Your task to perform on an android device: Open the calendar and show me this week's events? Image 0: 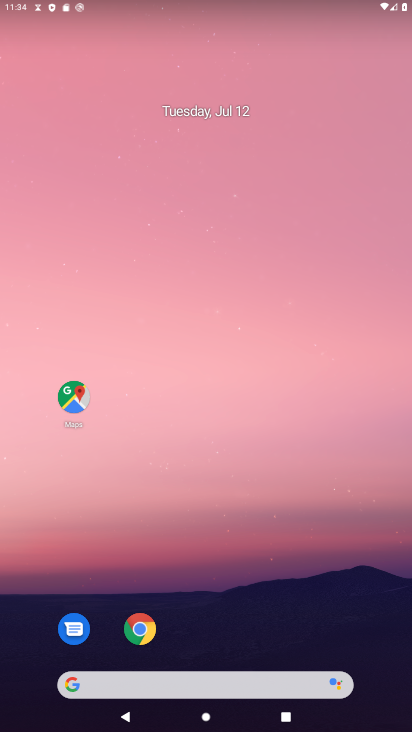
Step 0: drag from (303, 617) to (280, 29)
Your task to perform on an android device: Open the calendar and show me this week's events? Image 1: 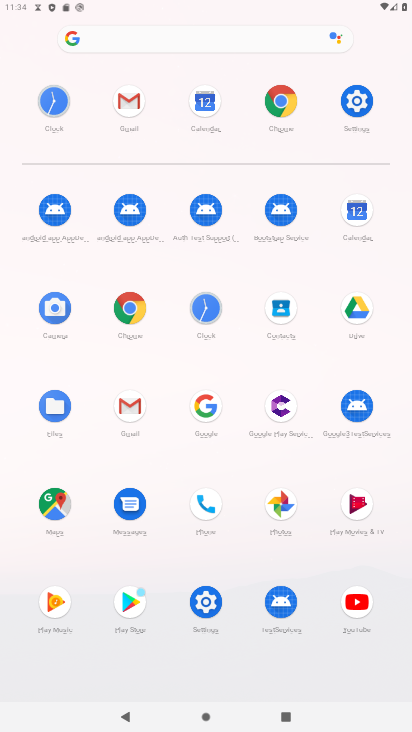
Step 1: click (351, 210)
Your task to perform on an android device: Open the calendar and show me this week's events? Image 2: 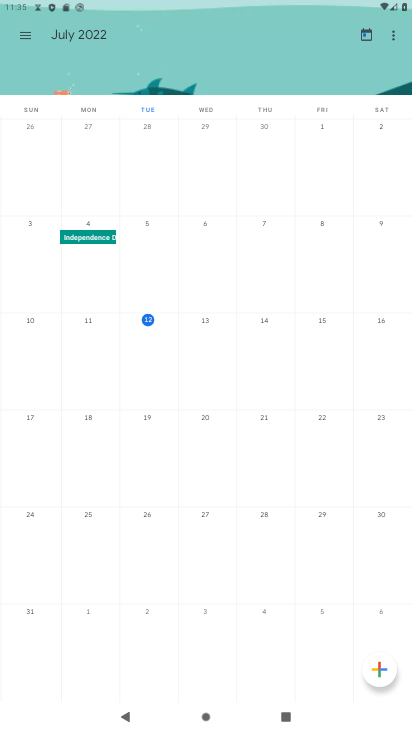
Step 2: task complete